Your task to perform on an android device: Show me the alarms in the clock app Image 0: 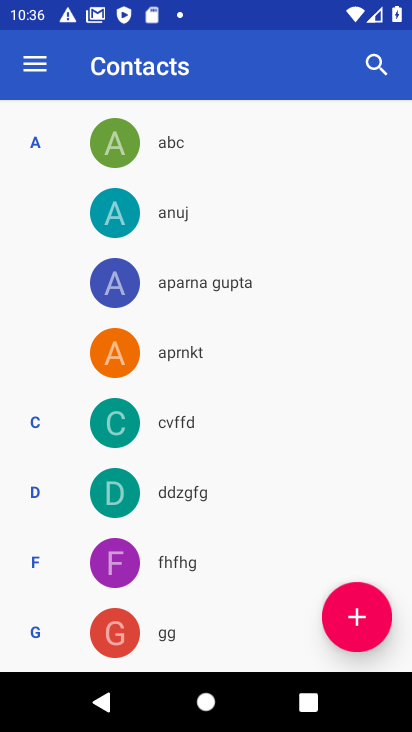
Step 0: press home button
Your task to perform on an android device: Show me the alarms in the clock app Image 1: 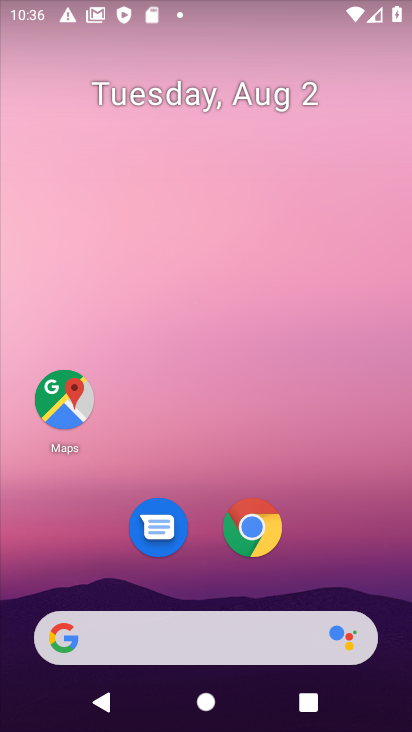
Step 1: drag from (208, 585) to (255, 42)
Your task to perform on an android device: Show me the alarms in the clock app Image 2: 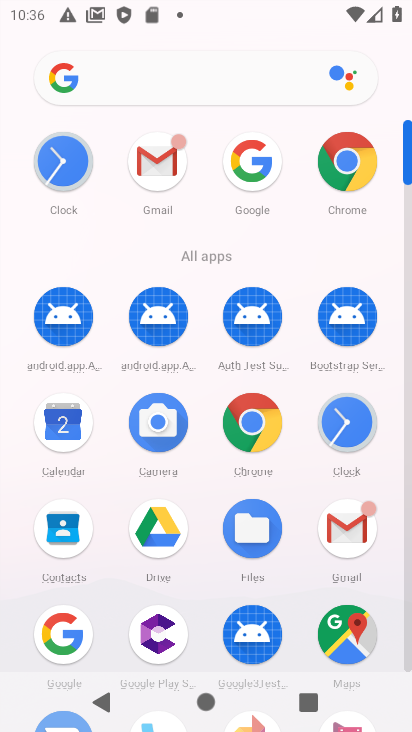
Step 2: click (59, 151)
Your task to perform on an android device: Show me the alarms in the clock app Image 3: 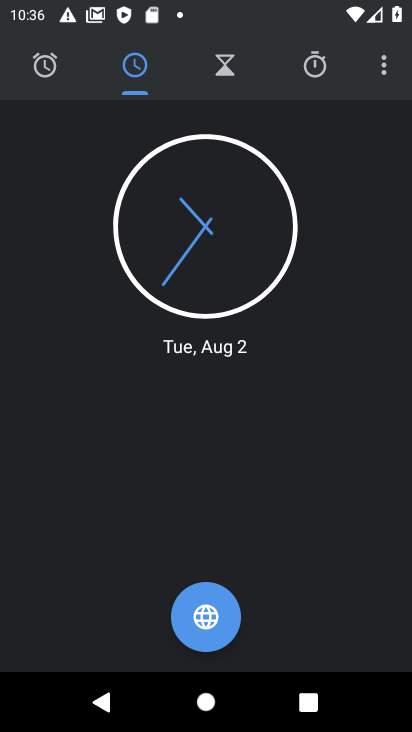
Step 3: click (42, 64)
Your task to perform on an android device: Show me the alarms in the clock app Image 4: 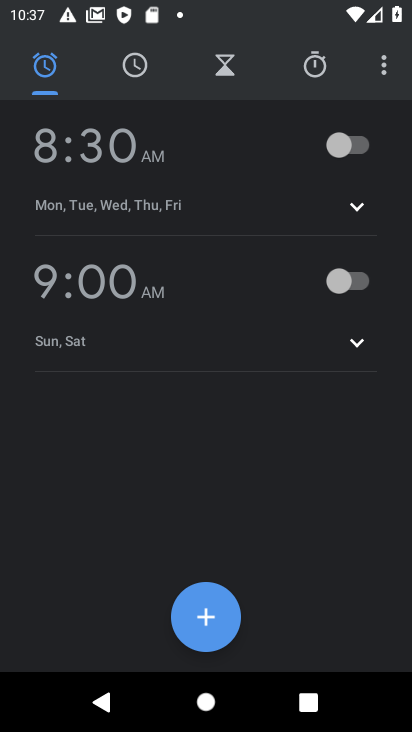
Step 4: click (357, 136)
Your task to perform on an android device: Show me the alarms in the clock app Image 5: 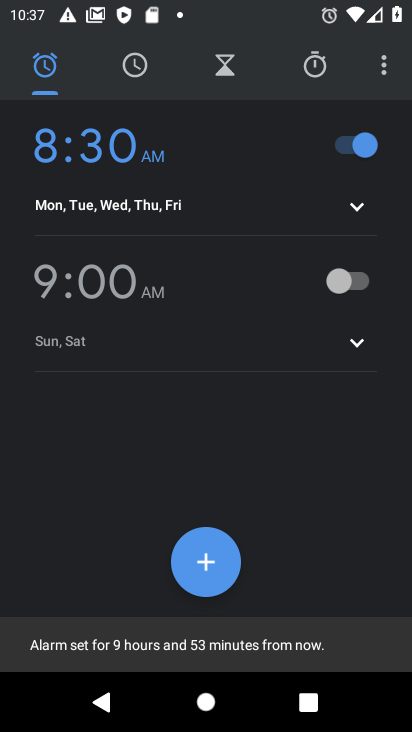
Step 5: task complete